Your task to perform on an android device: check google app version Image 0: 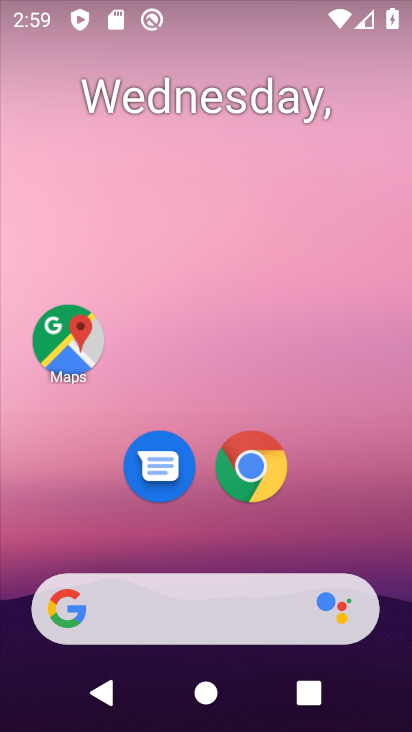
Step 0: click (252, 463)
Your task to perform on an android device: check google app version Image 1: 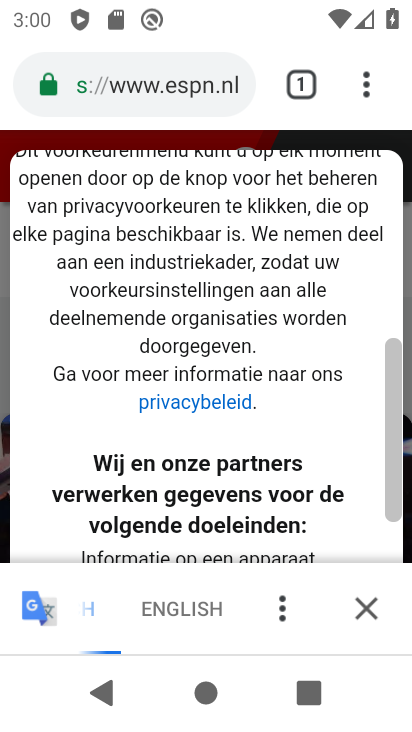
Step 1: click (364, 93)
Your task to perform on an android device: check google app version Image 2: 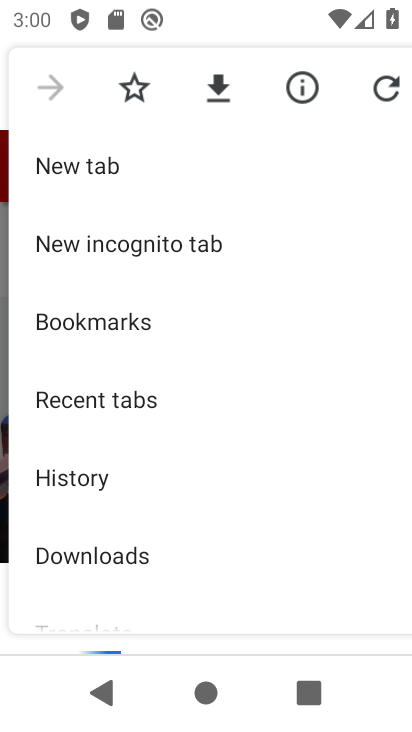
Step 2: drag from (193, 567) to (192, 376)
Your task to perform on an android device: check google app version Image 3: 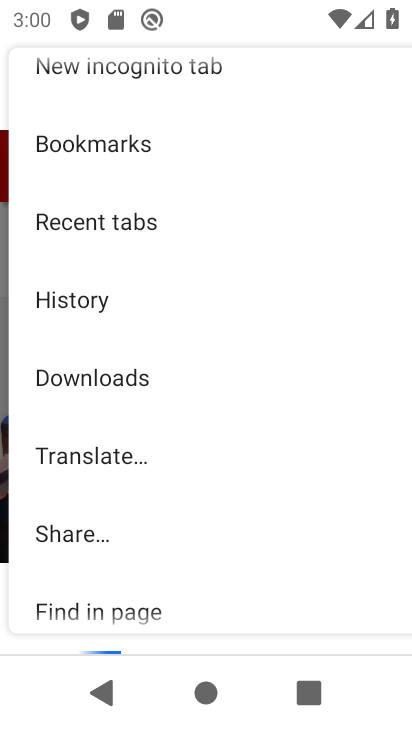
Step 3: drag from (188, 557) to (191, 314)
Your task to perform on an android device: check google app version Image 4: 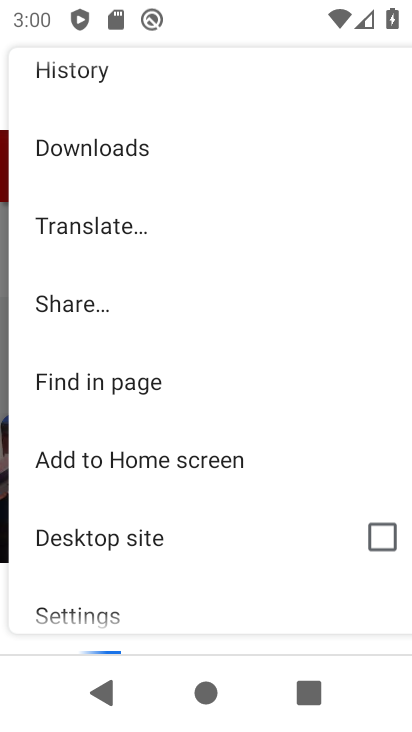
Step 4: drag from (189, 462) to (180, 236)
Your task to perform on an android device: check google app version Image 5: 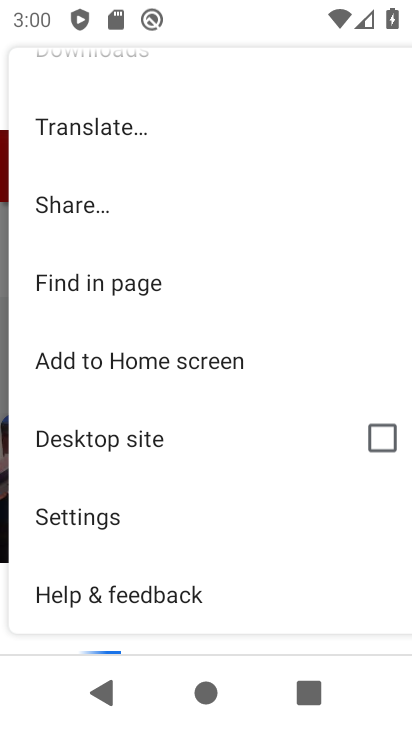
Step 5: click (88, 516)
Your task to perform on an android device: check google app version Image 6: 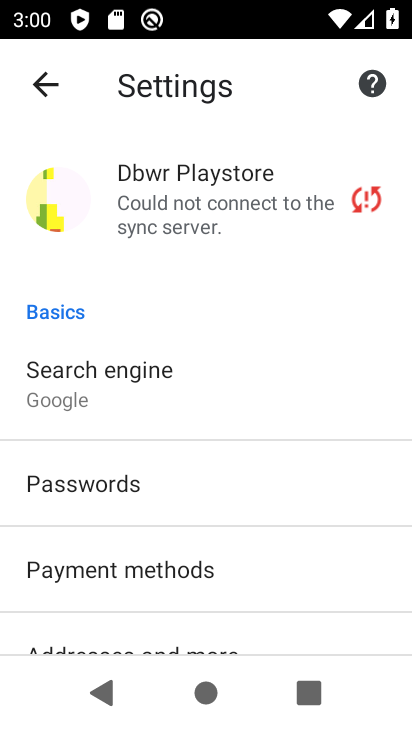
Step 6: drag from (249, 573) to (232, 320)
Your task to perform on an android device: check google app version Image 7: 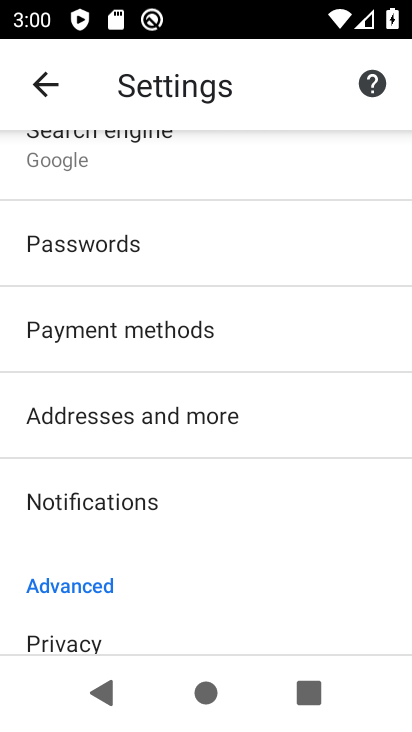
Step 7: drag from (252, 574) to (263, 381)
Your task to perform on an android device: check google app version Image 8: 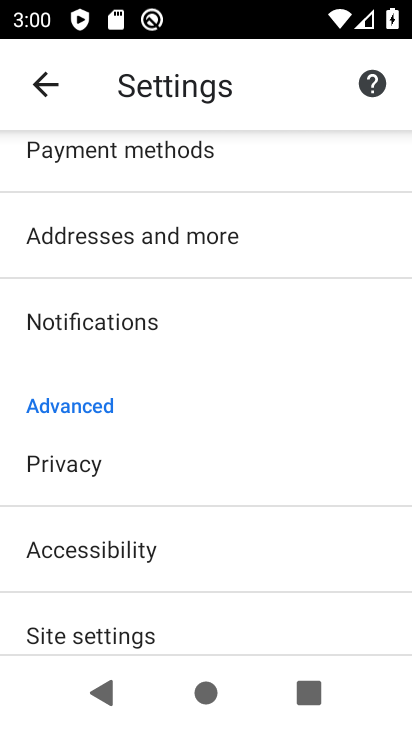
Step 8: drag from (230, 582) to (226, 319)
Your task to perform on an android device: check google app version Image 9: 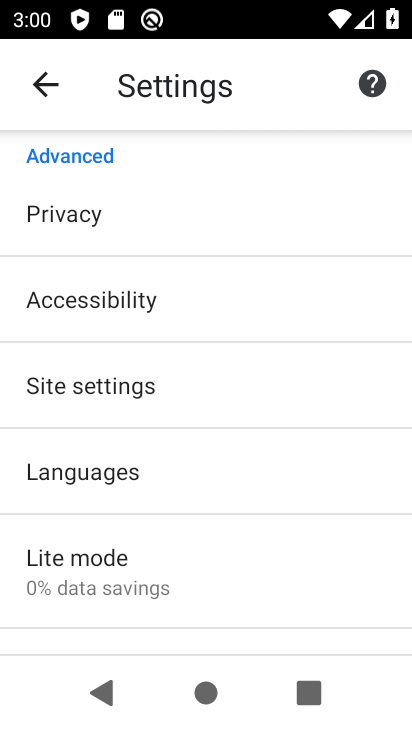
Step 9: drag from (199, 542) to (206, 265)
Your task to perform on an android device: check google app version Image 10: 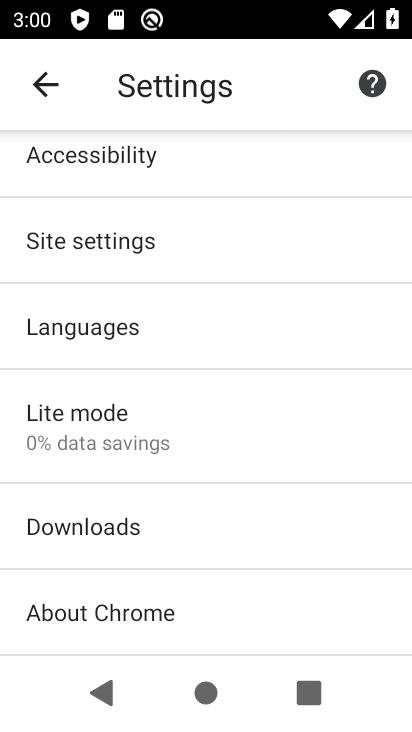
Step 10: click (137, 612)
Your task to perform on an android device: check google app version Image 11: 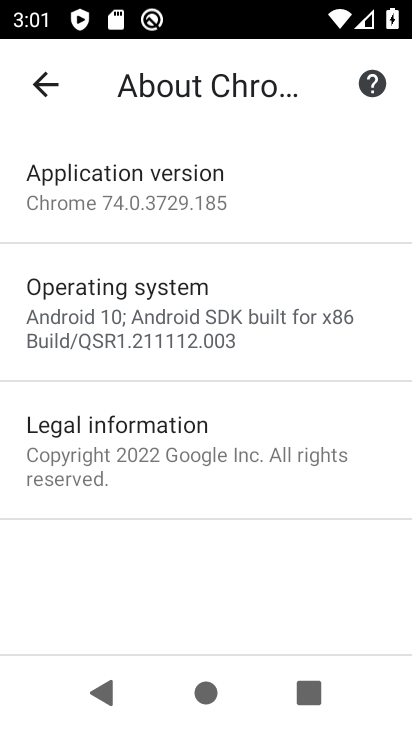
Step 11: task complete